Your task to perform on an android device: set an alarm Image 0: 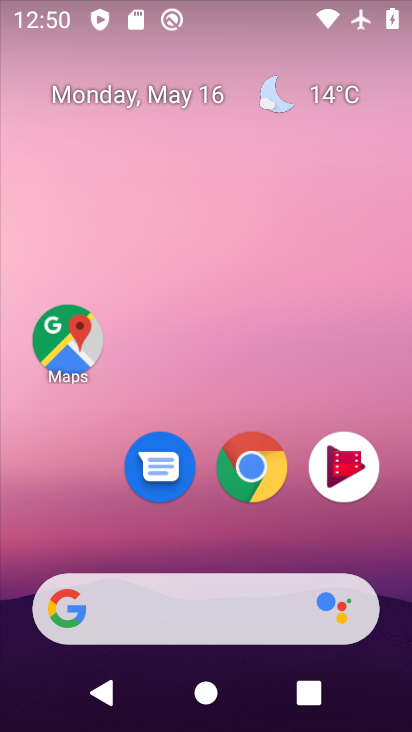
Step 0: drag from (228, 448) to (224, 294)
Your task to perform on an android device: set an alarm Image 1: 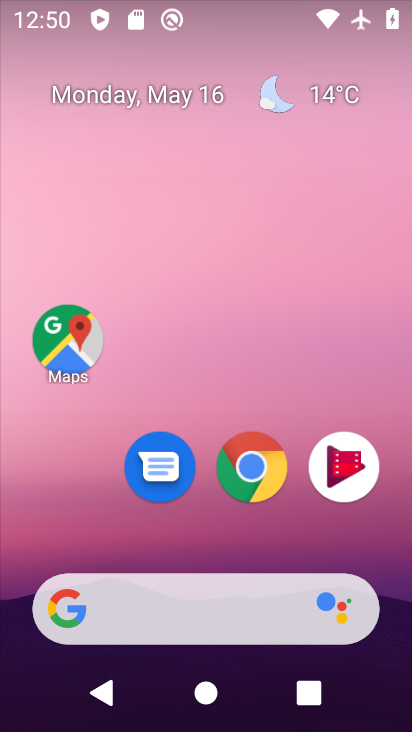
Step 1: drag from (209, 467) to (223, 168)
Your task to perform on an android device: set an alarm Image 2: 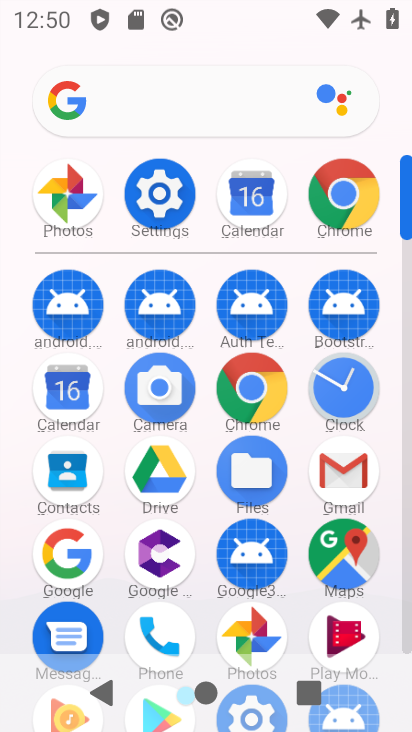
Step 2: click (336, 386)
Your task to perform on an android device: set an alarm Image 3: 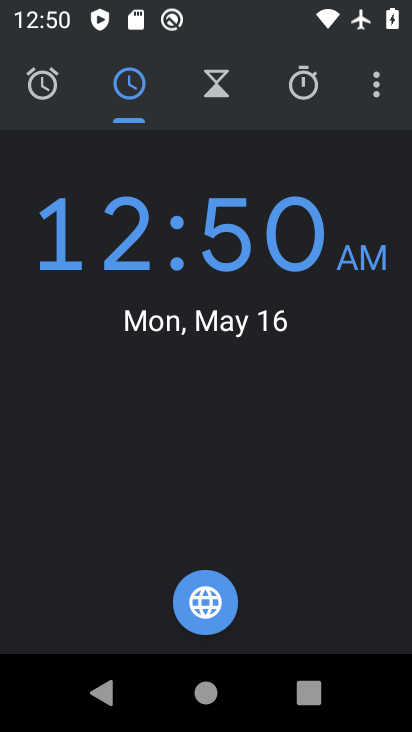
Step 3: click (29, 97)
Your task to perform on an android device: set an alarm Image 4: 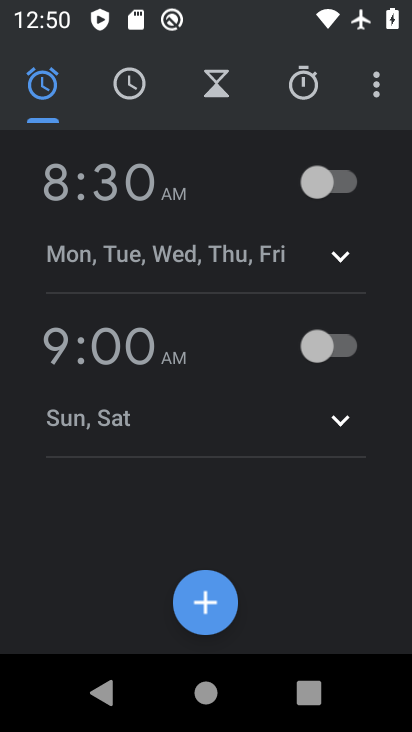
Step 4: click (342, 186)
Your task to perform on an android device: set an alarm Image 5: 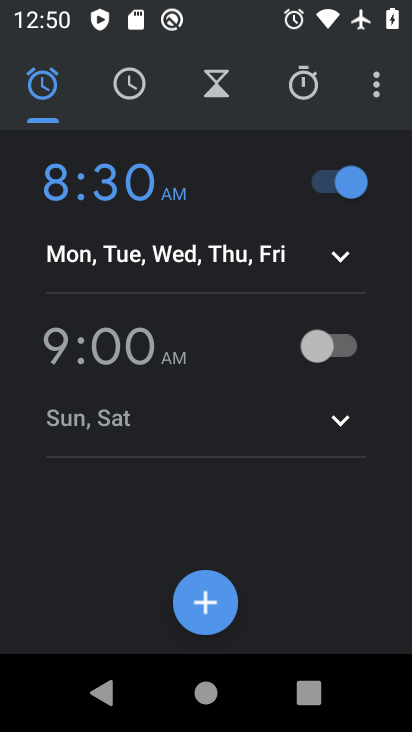
Step 5: click (333, 252)
Your task to perform on an android device: set an alarm Image 6: 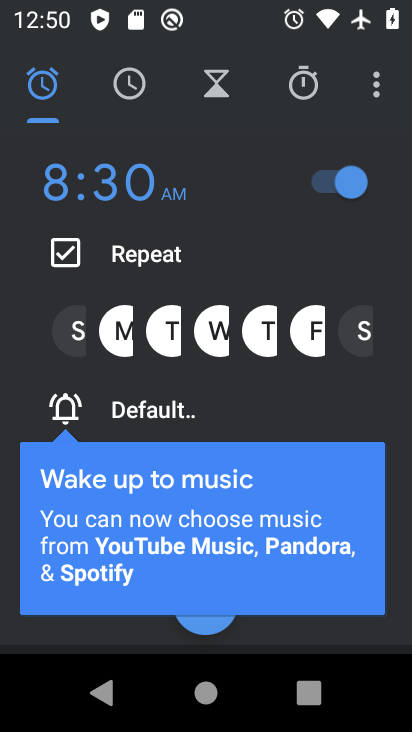
Step 6: click (55, 324)
Your task to perform on an android device: set an alarm Image 7: 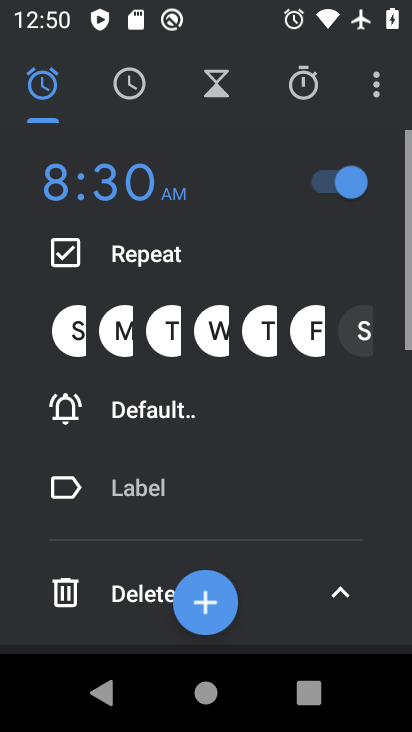
Step 7: click (357, 320)
Your task to perform on an android device: set an alarm Image 8: 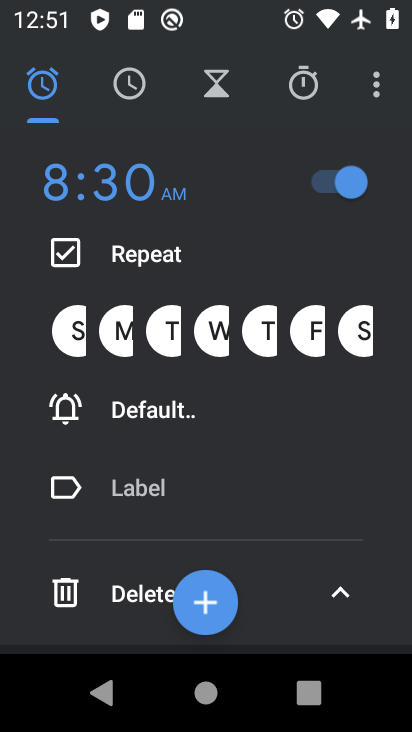
Step 8: task complete